Your task to perform on an android device: snooze an email in the gmail app Image 0: 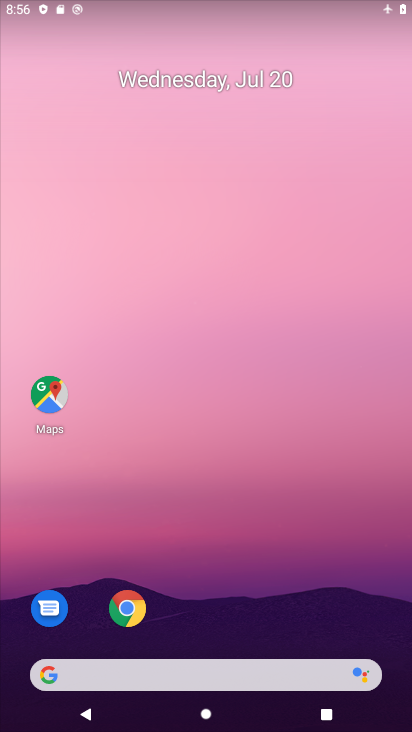
Step 0: drag from (211, 652) to (208, 225)
Your task to perform on an android device: snooze an email in the gmail app Image 1: 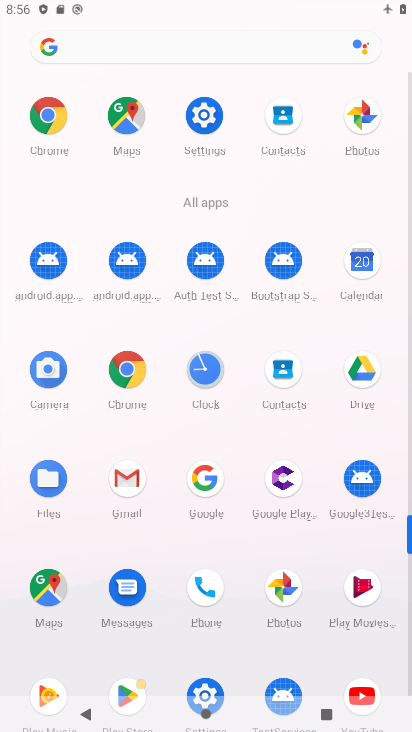
Step 1: click (135, 478)
Your task to perform on an android device: snooze an email in the gmail app Image 2: 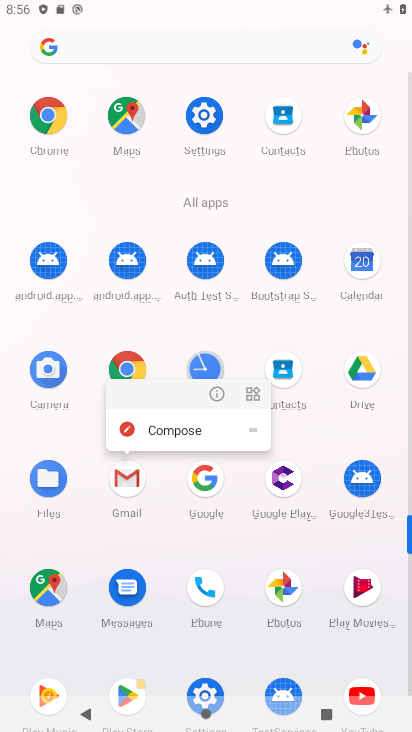
Step 2: click (135, 478)
Your task to perform on an android device: snooze an email in the gmail app Image 3: 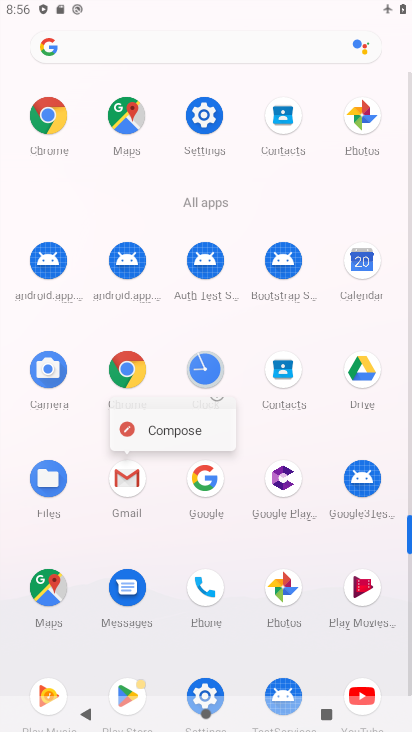
Step 3: click (135, 478)
Your task to perform on an android device: snooze an email in the gmail app Image 4: 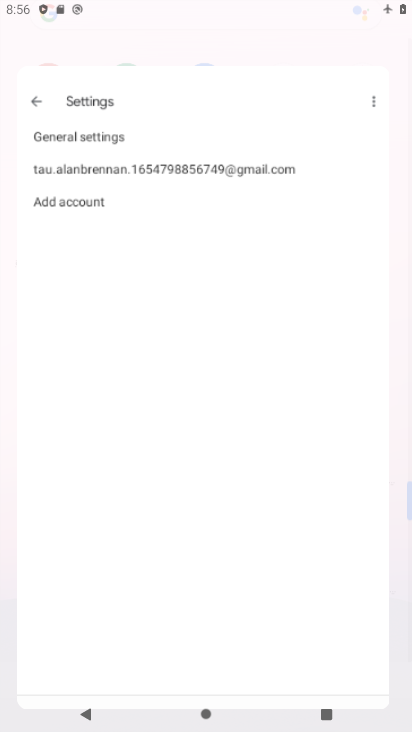
Step 4: click (134, 477)
Your task to perform on an android device: snooze an email in the gmail app Image 5: 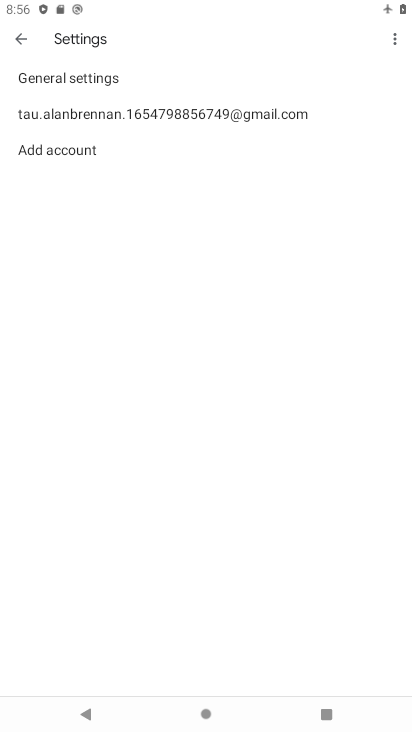
Step 5: click (14, 29)
Your task to perform on an android device: snooze an email in the gmail app Image 6: 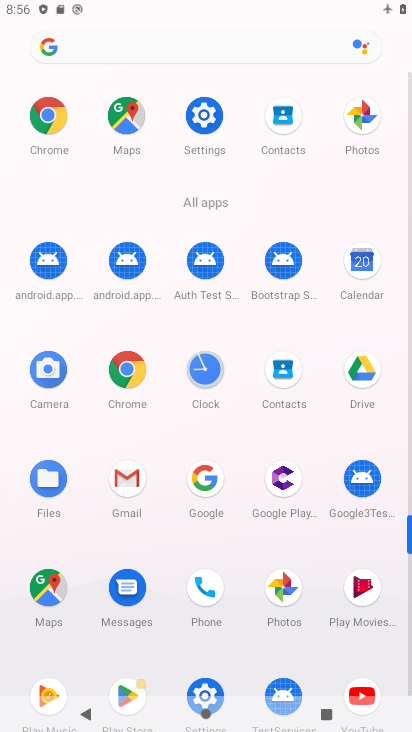
Step 6: click (113, 492)
Your task to perform on an android device: snooze an email in the gmail app Image 7: 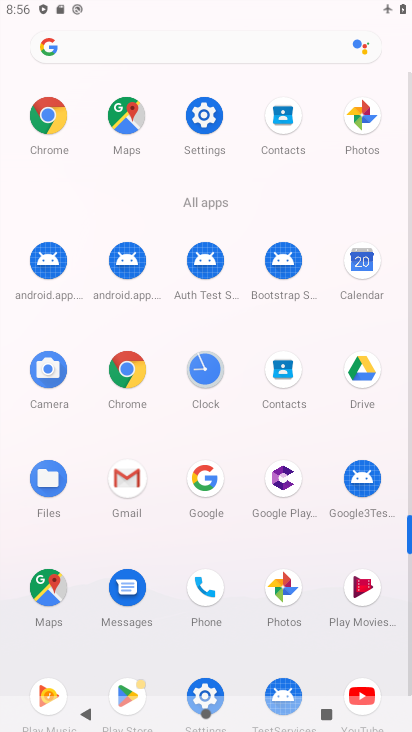
Step 7: click (124, 482)
Your task to perform on an android device: snooze an email in the gmail app Image 8: 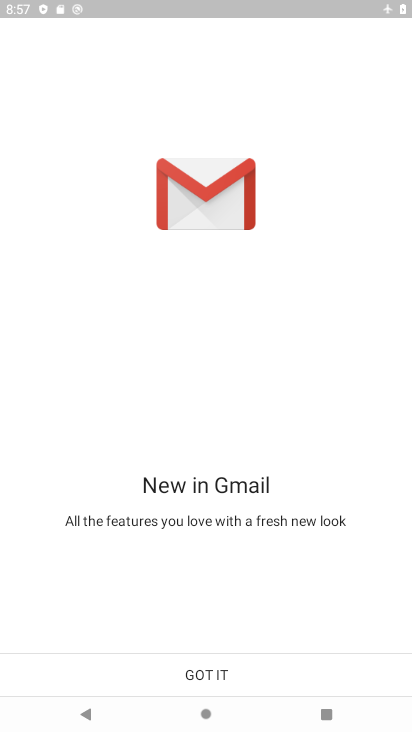
Step 8: click (211, 669)
Your task to perform on an android device: snooze an email in the gmail app Image 9: 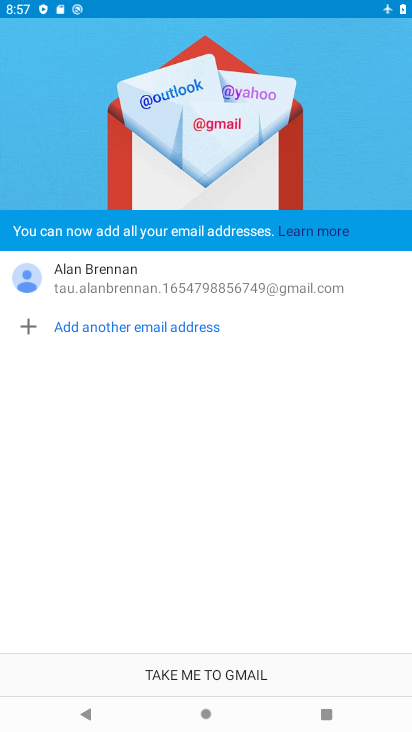
Step 9: click (203, 673)
Your task to perform on an android device: snooze an email in the gmail app Image 10: 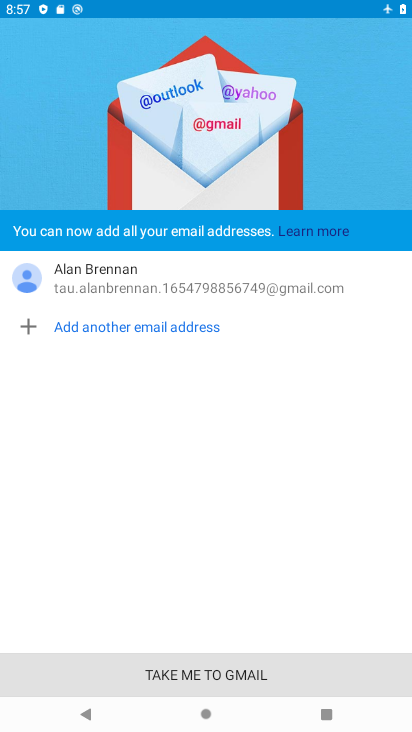
Step 10: click (203, 673)
Your task to perform on an android device: snooze an email in the gmail app Image 11: 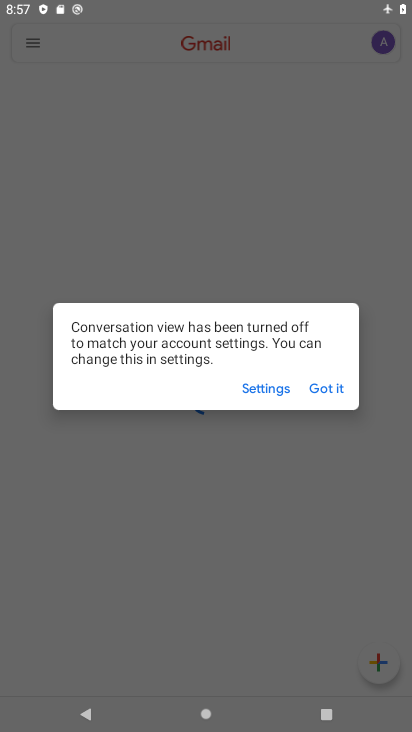
Step 11: click (326, 379)
Your task to perform on an android device: snooze an email in the gmail app Image 12: 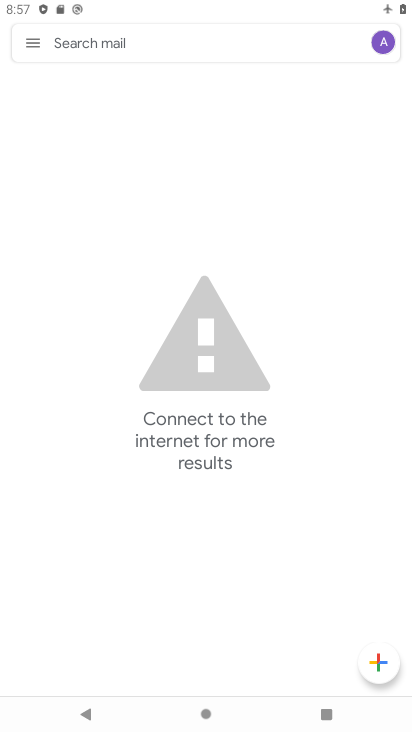
Step 12: task complete